Your task to perform on an android device: Open notification settings Image 0: 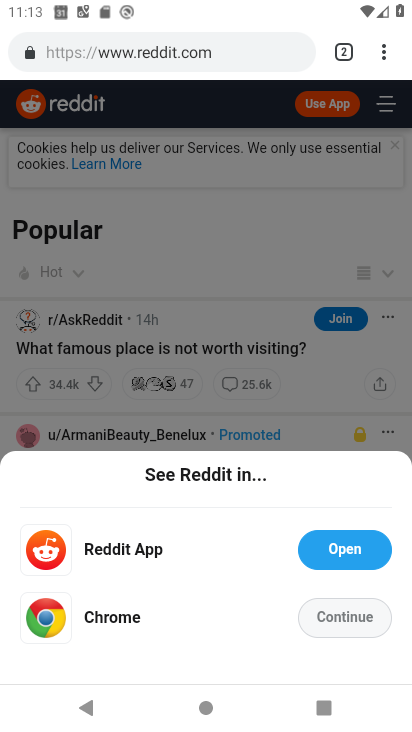
Step 0: press home button
Your task to perform on an android device: Open notification settings Image 1: 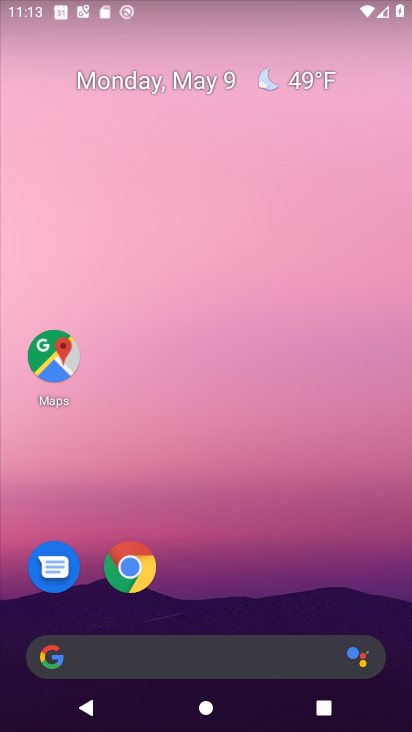
Step 1: drag from (217, 627) to (252, 84)
Your task to perform on an android device: Open notification settings Image 2: 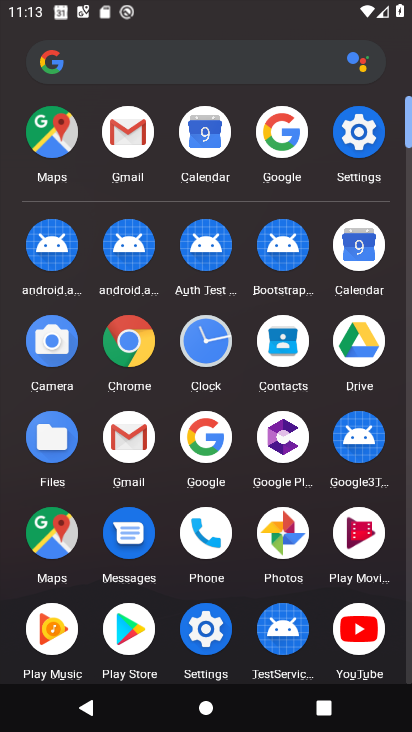
Step 2: click (341, 132)
Your task to perform on an android device: Open notification settings Image 3: 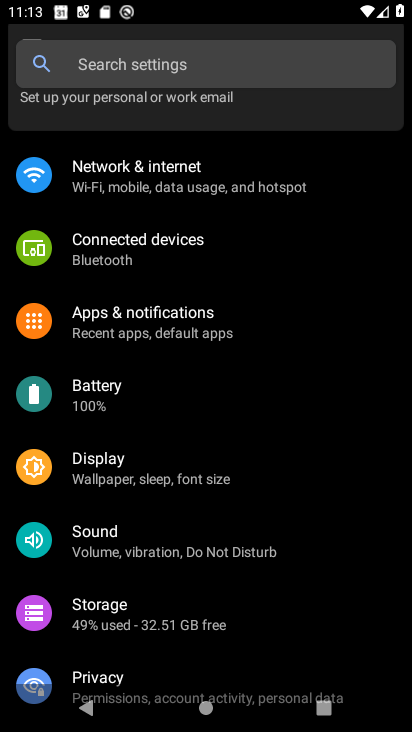
Step 3: click (142, 326)
Your task to perform on an android device: Open notification settings Image 4: 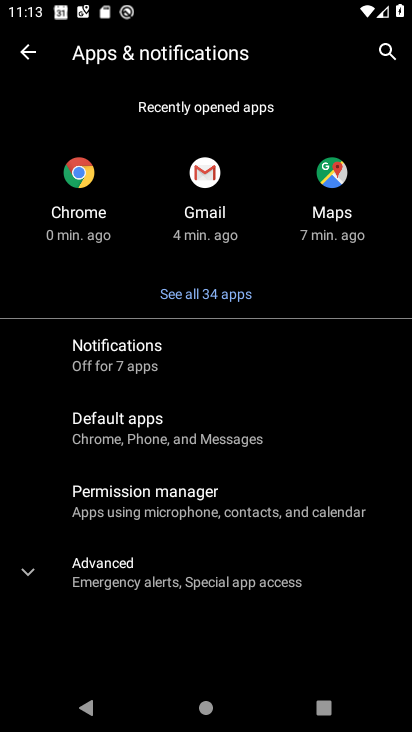
Step 4: click (170, 573)
Your task to perform on an android device: Open notification settings Image 5: 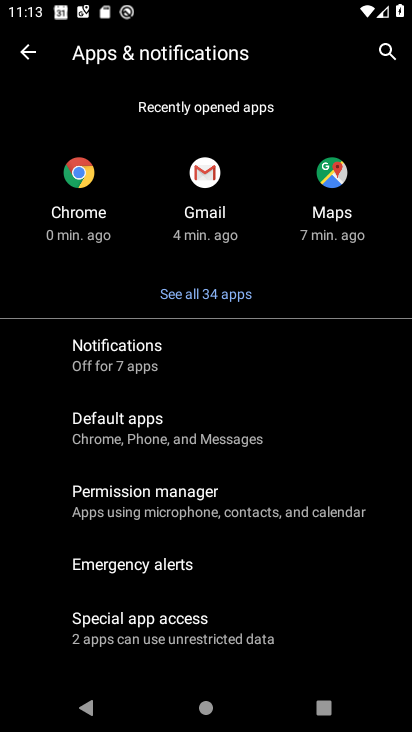
Step 5: click (153, 602)
Your task to perform on an android device: Open notification settings Image 6: 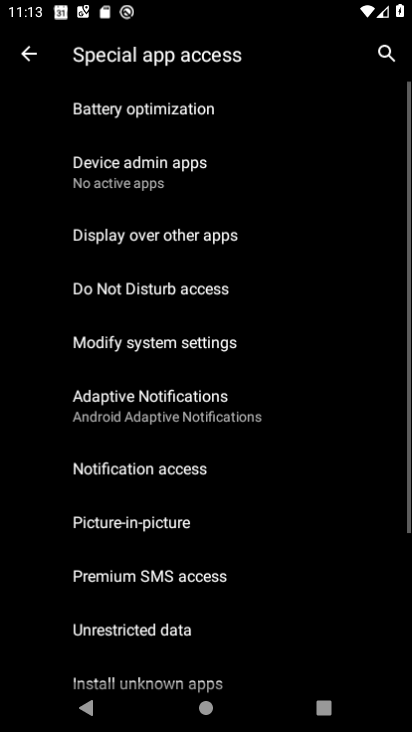
Step 6: task complete